Your task to perform on an android device: Go to privacy settings Image 0: 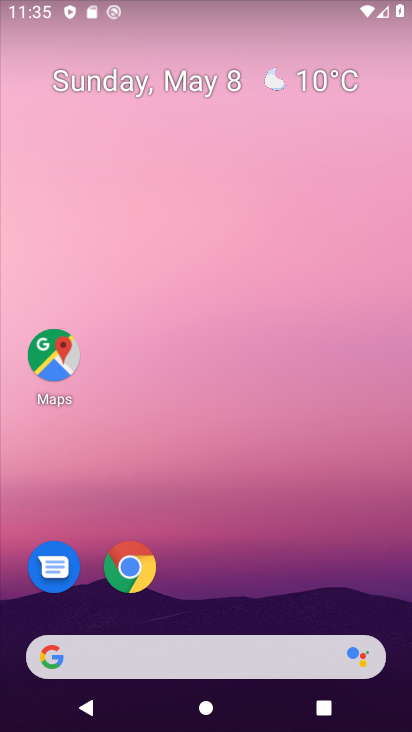
Step 0: drag from (275, 547) to (262, 128)
Your task to perform on an android device: Go to privacy settings Image 1: 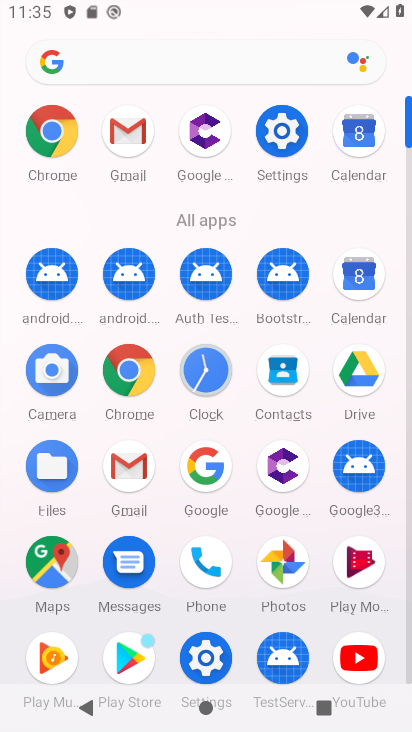
Step 1: click (287, 133)
Your task to perform on an android device: Go to privacy settings Image 2: 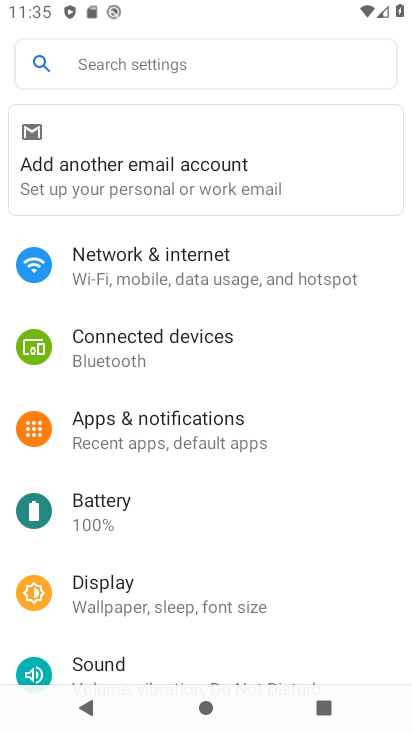
Step 2: drag from (228, 599) to (227, 168)
Your task to perform on an android device: Go to privacy settings Image 3: 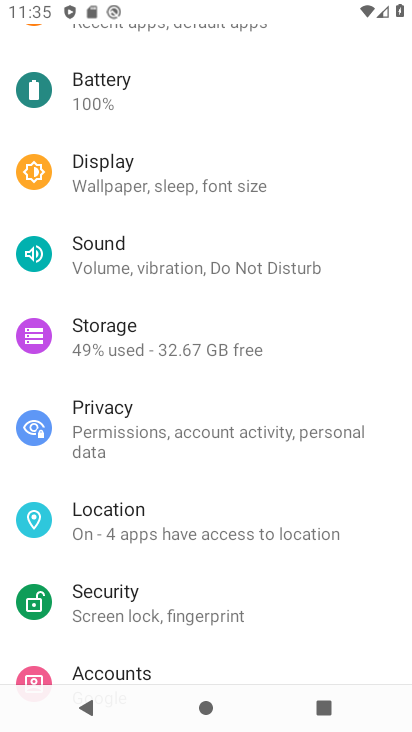
Step 3: click (202, 440)
Your task to perform on an android device: Go to privacy settings Image 4: 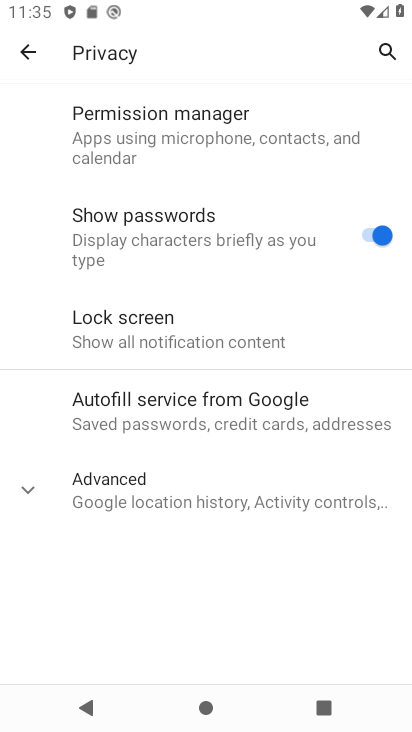
Step 4: task complete